Your task to perform on an android device: set an alarm Image 0: 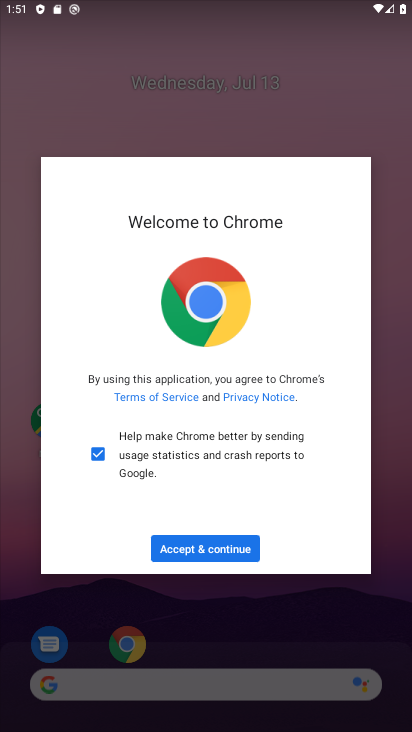
Step 0: press home button
Your task to perform on an android device: set an alarm Image 1: 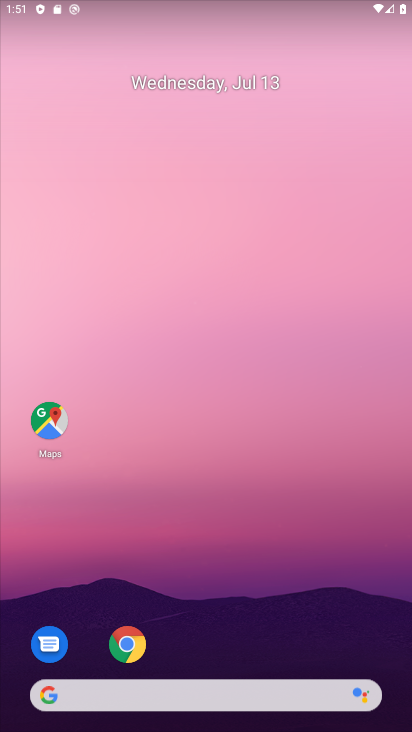
Step 1: drag from (225, 653) to (206, 77)
Your task to perform on an android device: set an alarm Image 2: 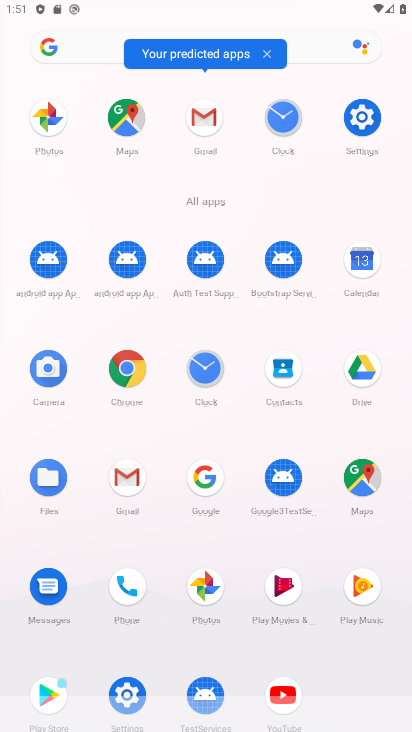
Step 2: click (217, 365)
Your task to perform on an android device: set an alarm Image 3: 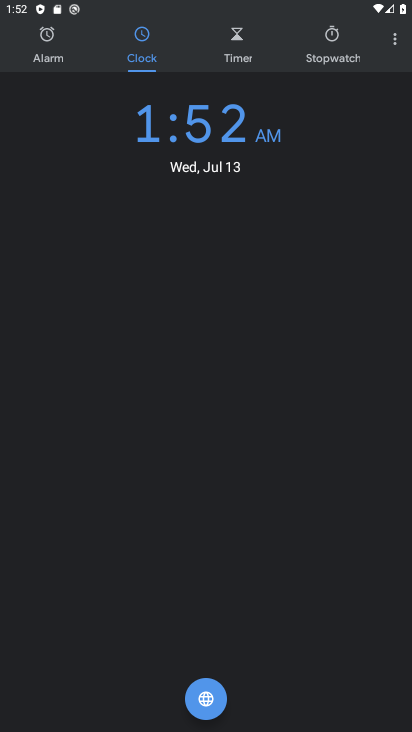
Step 3: click (68, 33)
Your task to perform on an android device: set an alarm Image 4: 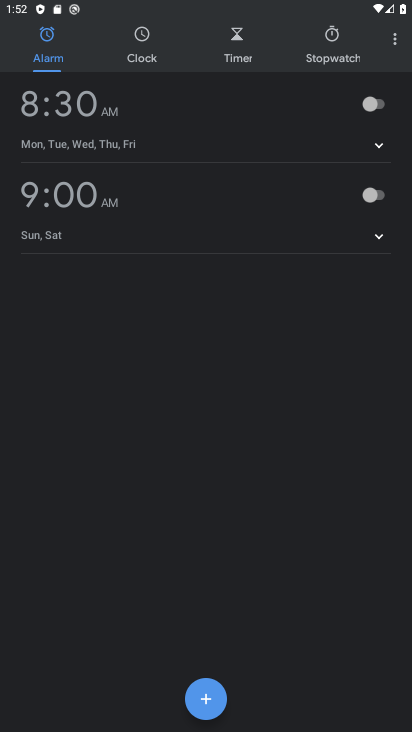
Step 4: click (221, 699)
Your task to perform on an android device: set an alarm Image 5: 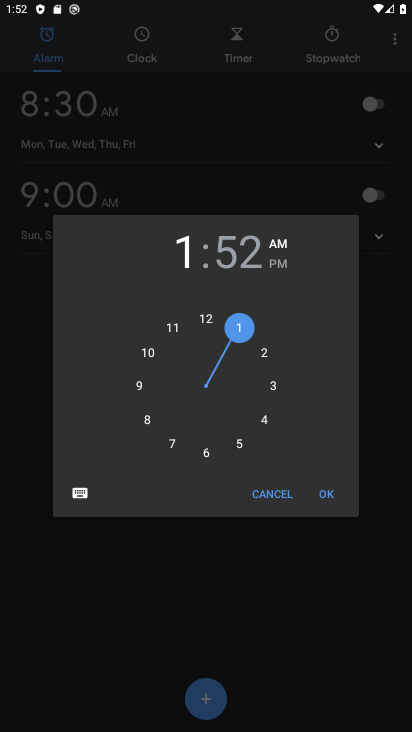
Step 5: click (328, 497)
Your task to perform on an android device: set an alarm Image 6: 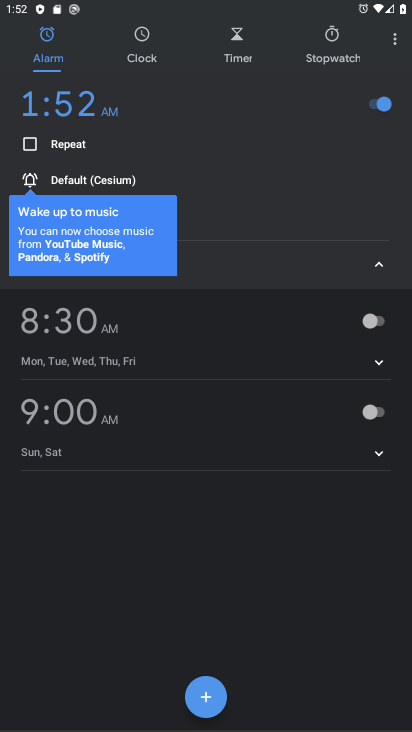
Step 6: task complete